Your task to perform on an android device: How much does a 3 bedroom apartment rent for in San Francisco? Image 0: 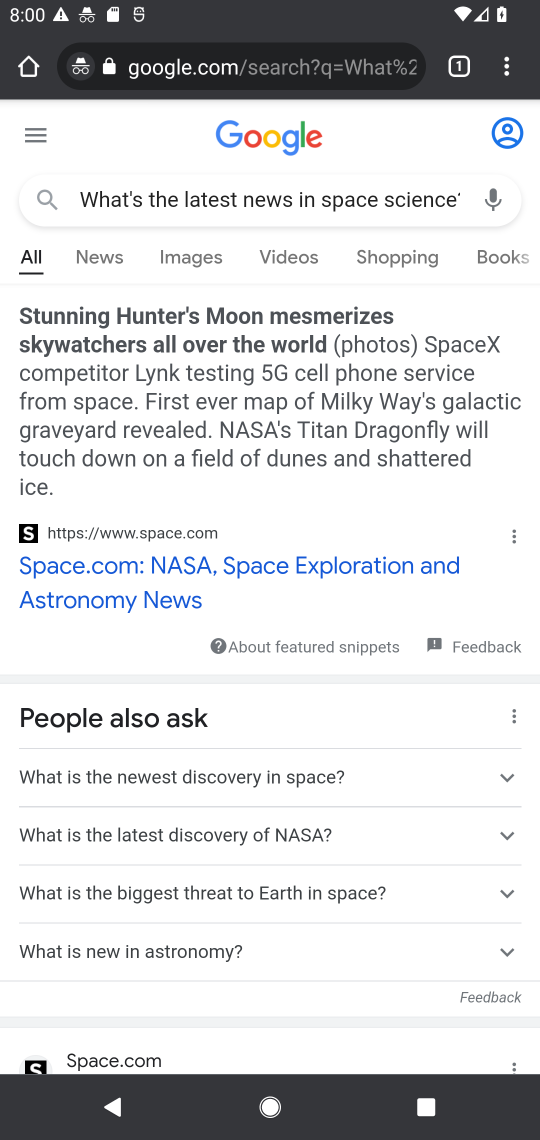
Step 0: click (229, 66)
Your task to perform on an android device: How much does a 3 bedroom apartment rent for in San Francisco? Image 1: 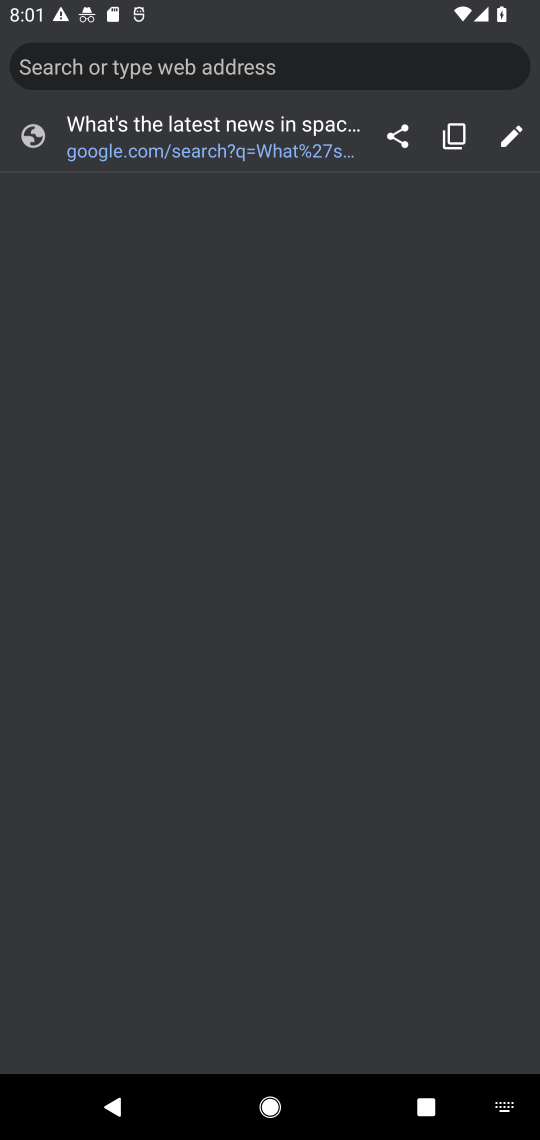
Step 1: type "How much does a 3 bedroom apartment rent for in San Francisco?"
Your task to perform on an android device: How much does a 3 bedroom apartment rent for in San Francisco? Image 2: 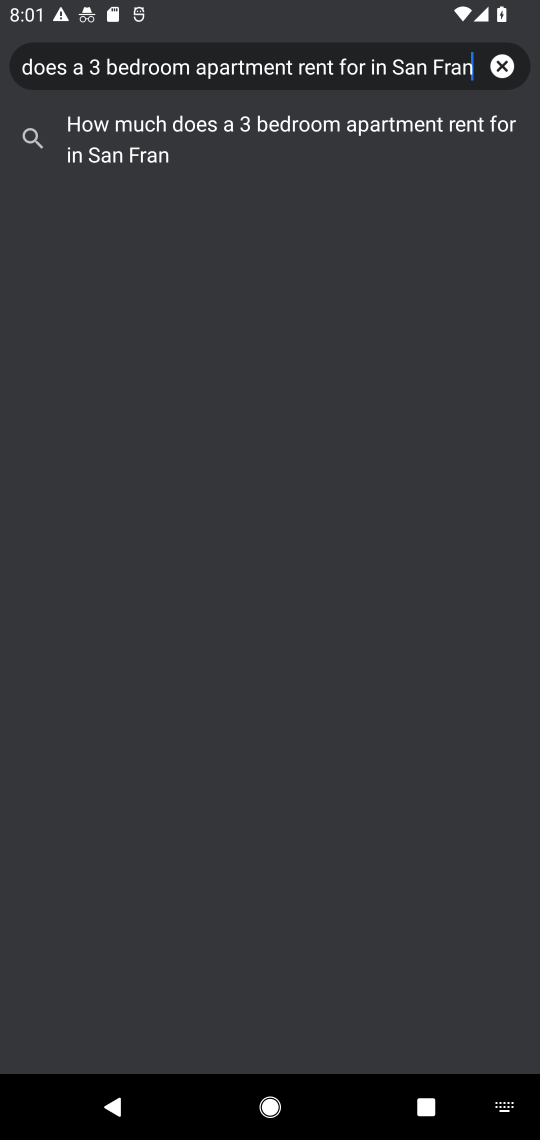
Step 2: type "cisco?"
Your task to perform on an android device: How much does a 3 bedroom apartment rent for in San Francisco? Image 3: 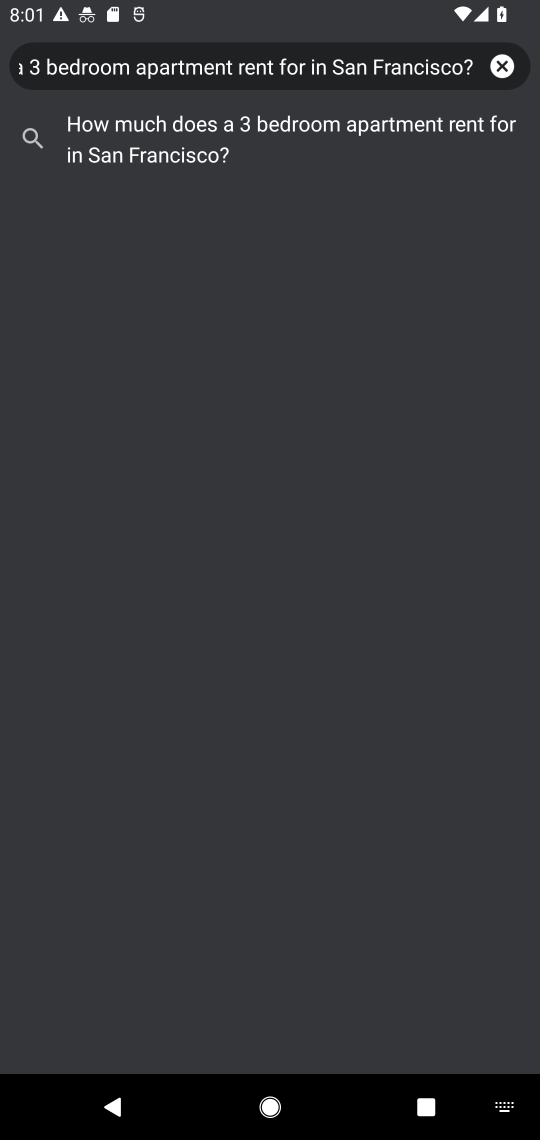
Step 3: press enter
Your task to perform on an android device: How much does a 3 bedroom apartment rent for in San Francisco? Image 4: 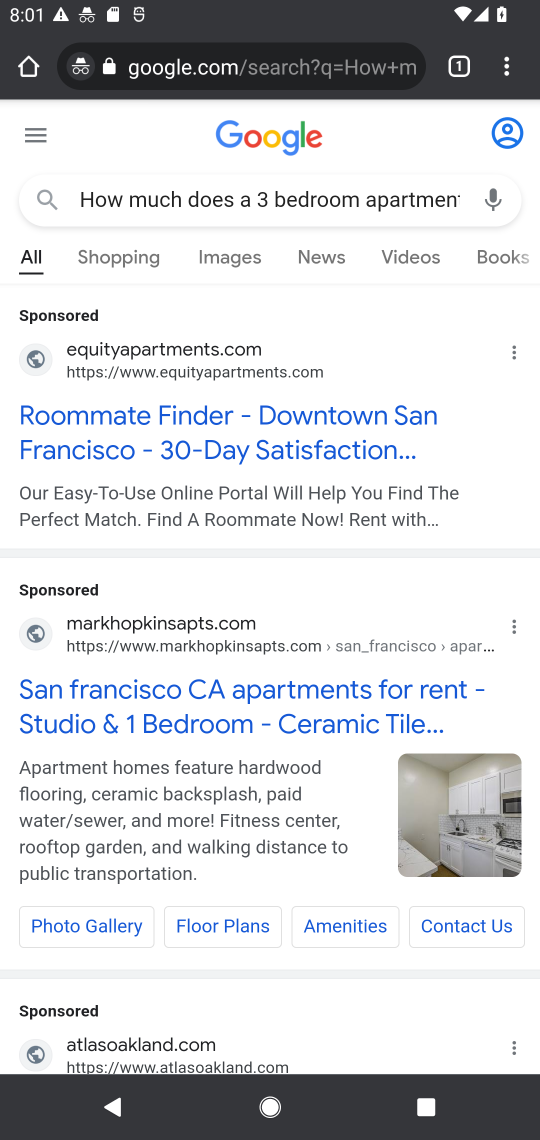
Step 4: drag from (256, 840) to (218, 204)
Your task to perform on an android device: How much does a 3 bedroom apartment rent for in San Francisco? Image 5: 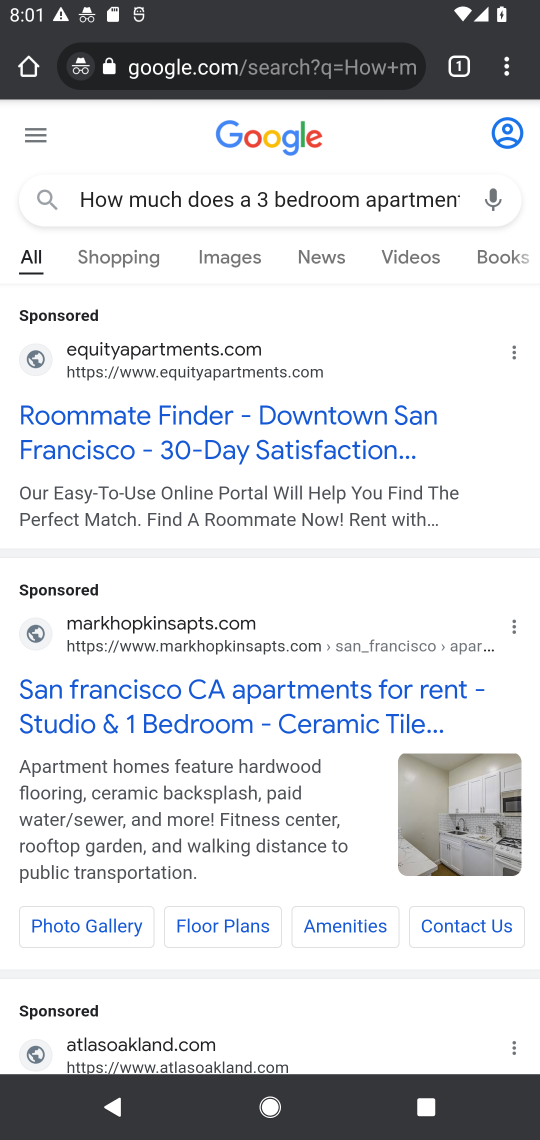
Step 5: drag from (225, 977) to (277, 196)
Your task to perform on an android device: How much does a 3 bedroom apartment rent for in San Francisco? Image 6: 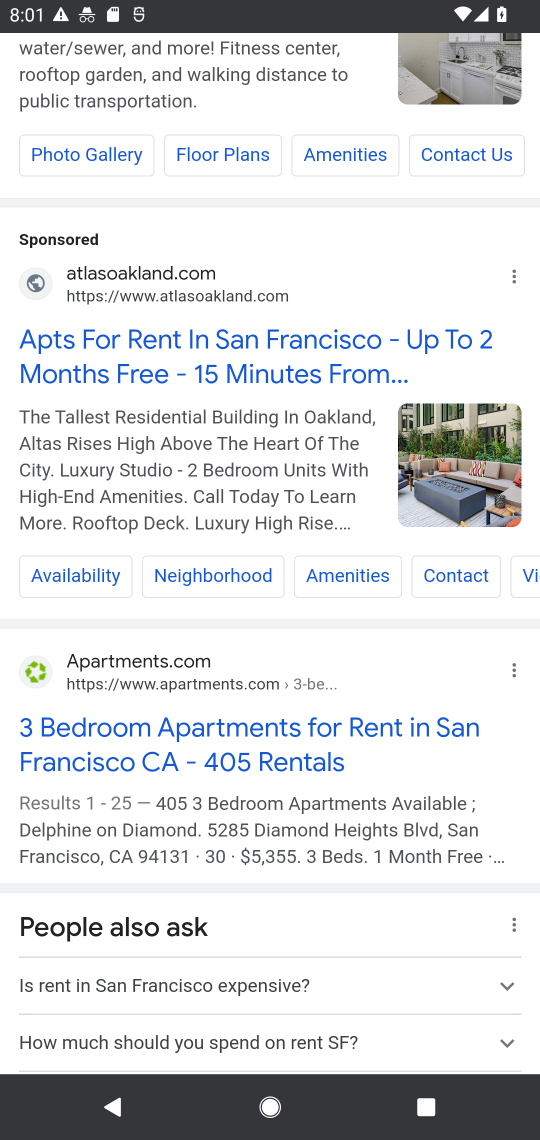
Step 6: drag from (279, 798) to (313, 386)
Your task to perform on an android device: How much does a 3 bedroom apartment rent for in San Francisco? Image 7: 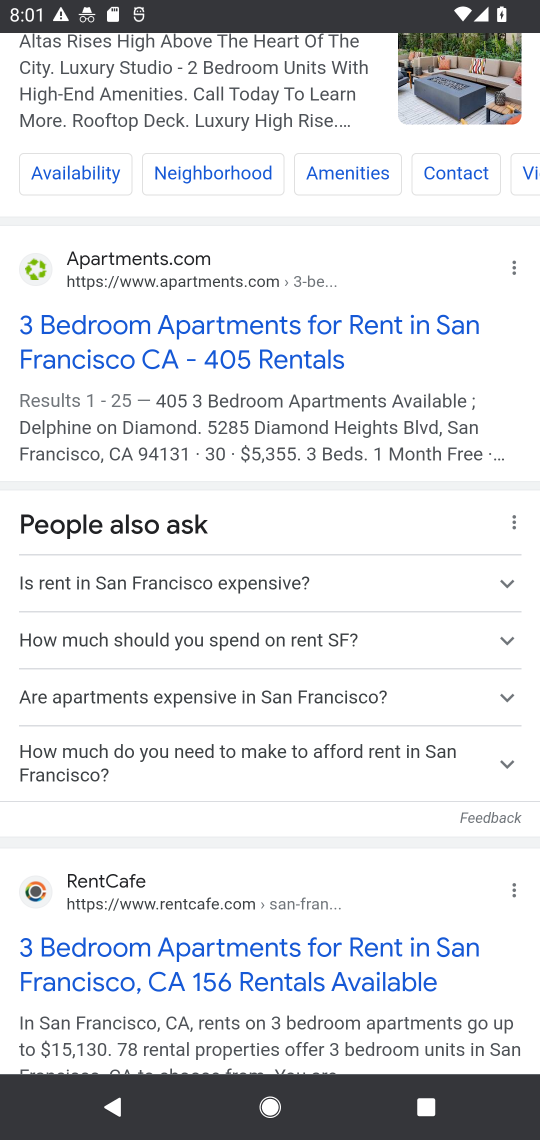
Step 7: click (247, 336)
Your task to perform on an android device: How much does a 3 bedroom apartment rent for in San Francisco? Image 8: 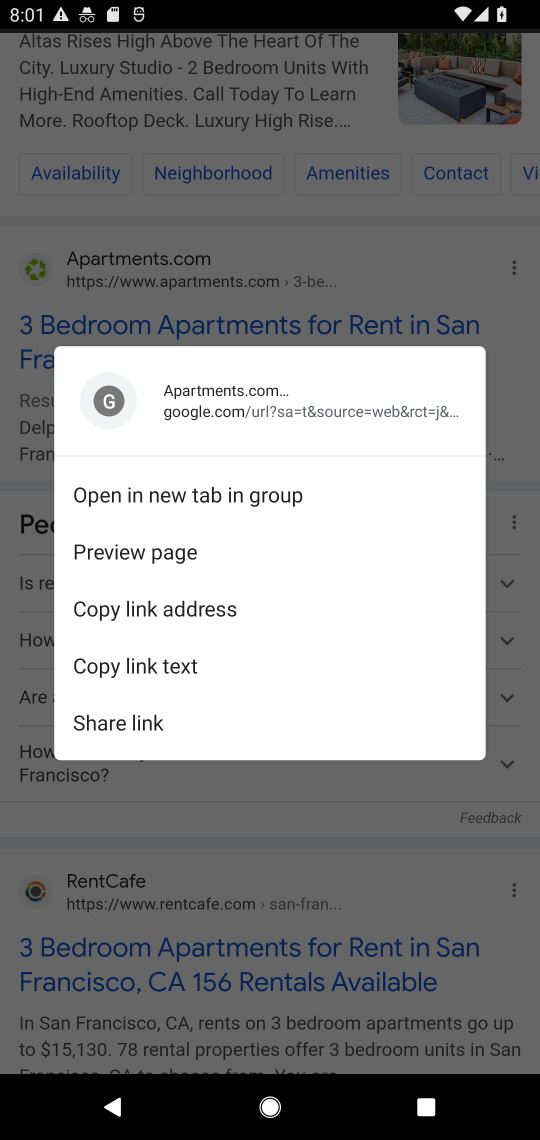
Step 8: click (318, 288)
Your task to perform on an android device: How much does a 3 bedroom apartment rent for in San Francisco? Image 9: 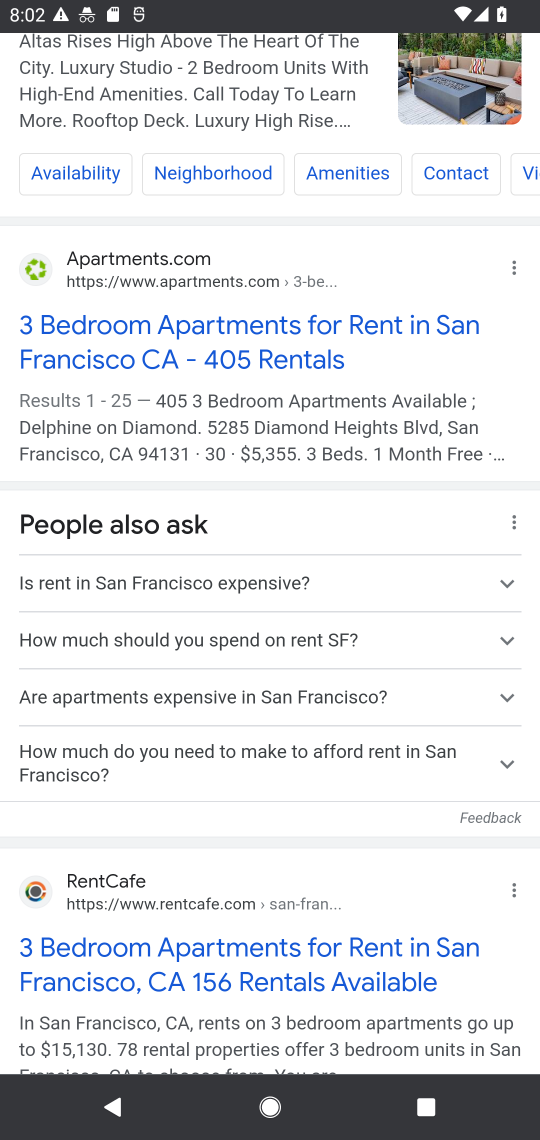
Step 9: click (287, 334)
Your task to perform on an android device: How much does a 3 bedroom apartment rent for in San Francisco? Image 10: 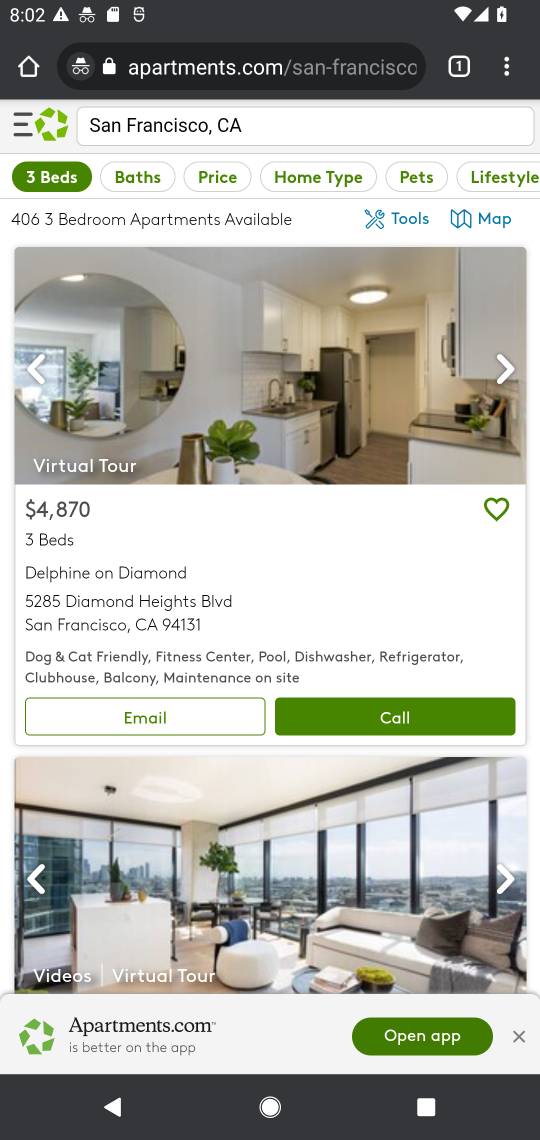
Step 10: task complete